Your task to perform on an android device: turn vacation reply on in the gmail app Image 0: 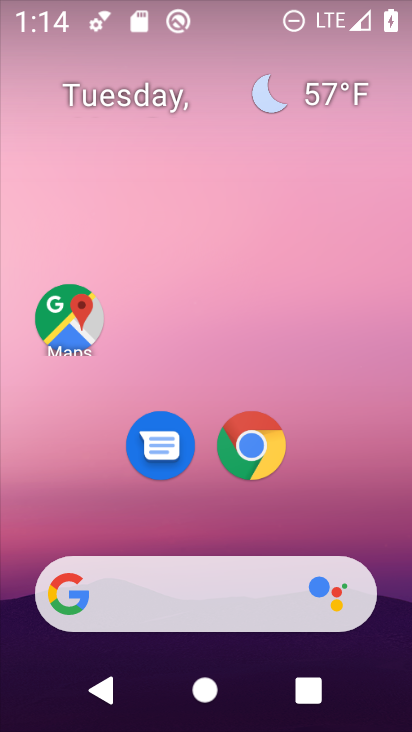
Step 0: drag from (369, 547) to (379, 179)
Your task to perform on an android device: turn vacation reply on in the gmail app Image 1: 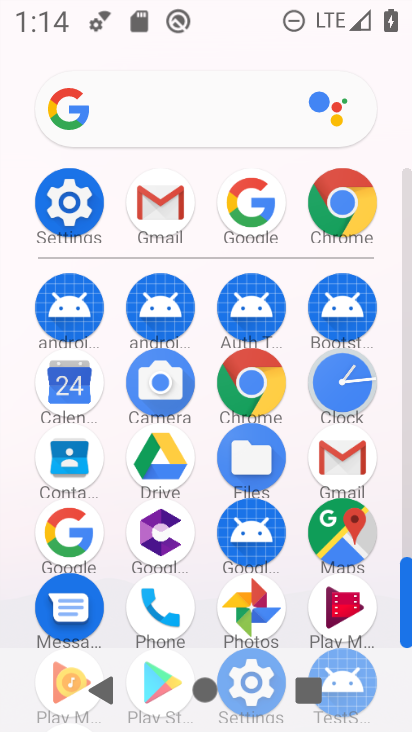
Step 1: click (344, 458)
Your task to perform on an android device: turn vacation reply on in the gmail app Image 2: 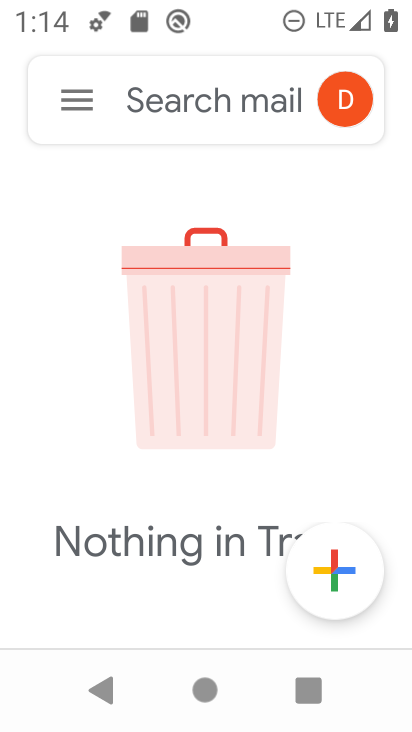
Step 2: click (84, 101)
Your task to perform on an android device: turn vacation reply on in the gmail app Image 3: 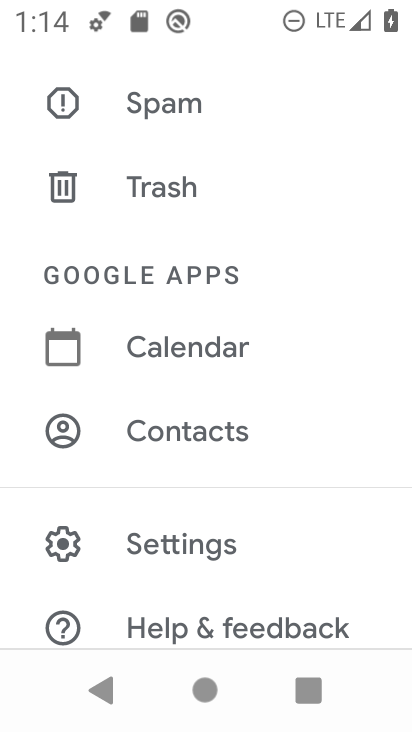
Step 3: drag from (331, 297) to (310, 424)
Your task to perform on an android device: turn vacation reply on in the gmail app Image 4: 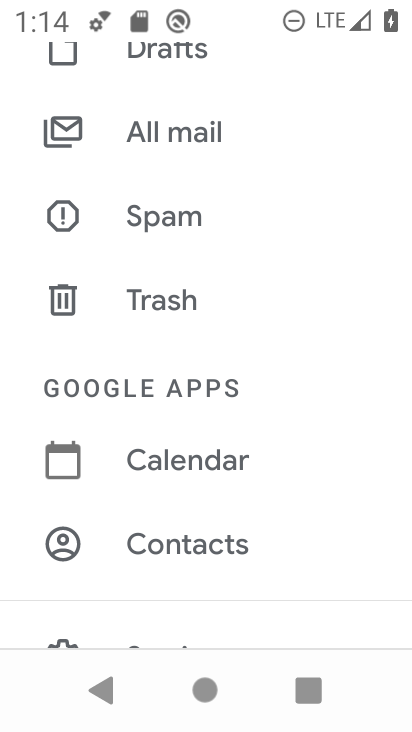
Step 4: drag from (341, 258) to (348, 391)
Your task to perform on an android device: turn vacation reply on in the gmail app Image 5: 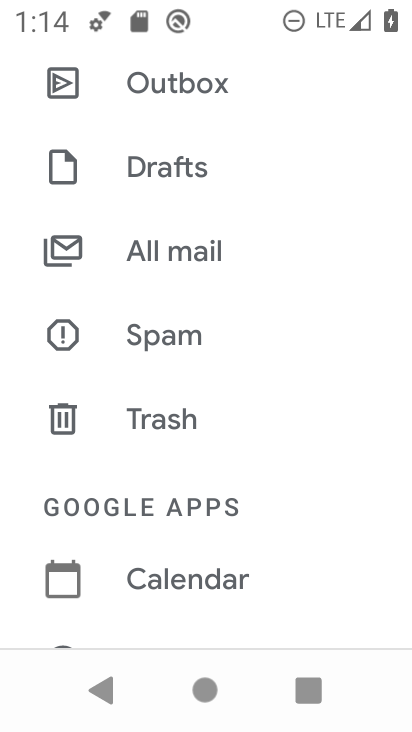
Step 5: drag from (363, 228) to (358, 341)
Your task to perform on an android device: turn vacation reply on in the gmail app Image 6: 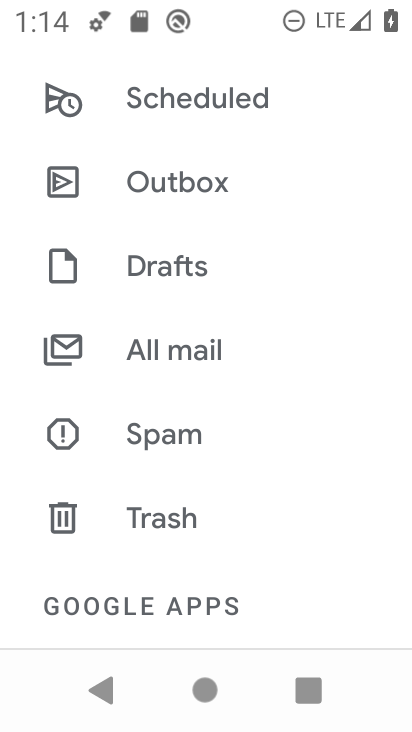
Step 6: drag from (356, 177) to (349, 337)
Your task to perform on an android device: turn vacation reply on in the gmail app Image 7: 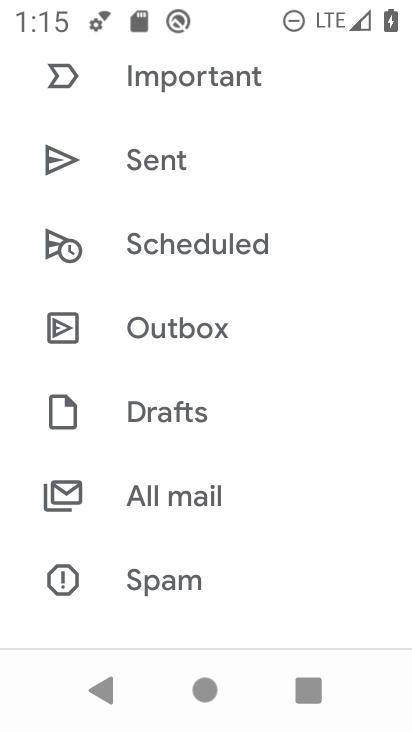
Step 7: drag from (347, 163) to (333, 373)
Your task to perform on an android device: turn vacation reply on in the gmail app Image 8: 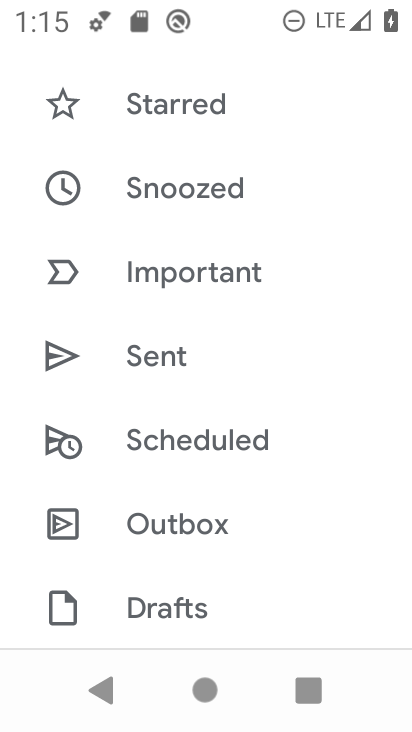
Step 8: drag from (353, 135) to (354, 379)
Your task to perform on an android device: turn vacation reply on in the gmail app Image 9: 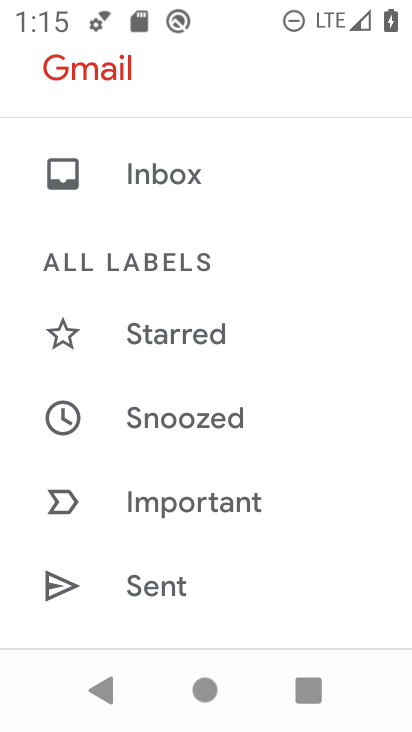
Step 9: drag from (361, 409) to (351, 212)
Your task to perform on an android device: turn vacation reply on in the gmail app Image 10: 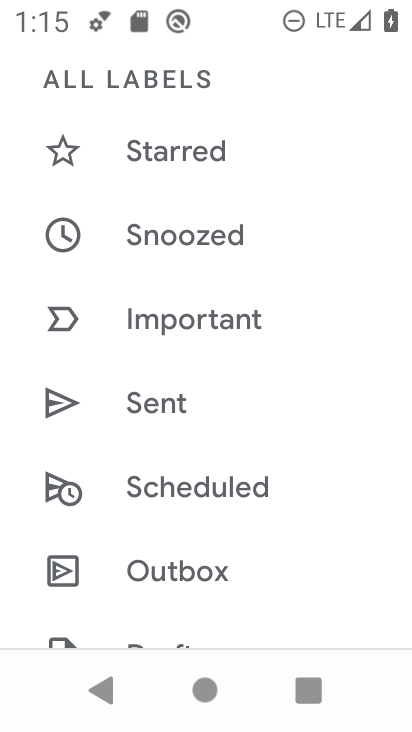
Step 10: drag from (363, 464) to (382, 288)
Your task to perform on an android device: turn vacation reply on in the gmail app Image 11: 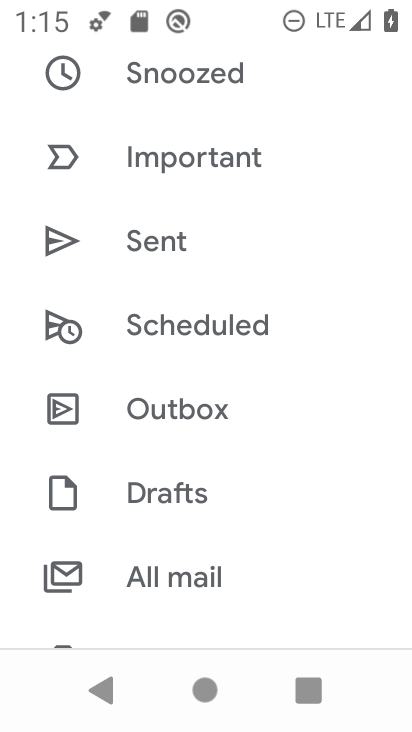
Step 11: drag from (326, 533) to (344, 355)
Your task to perform on an android device: turn vacation reply on in the gmail app Image 12: 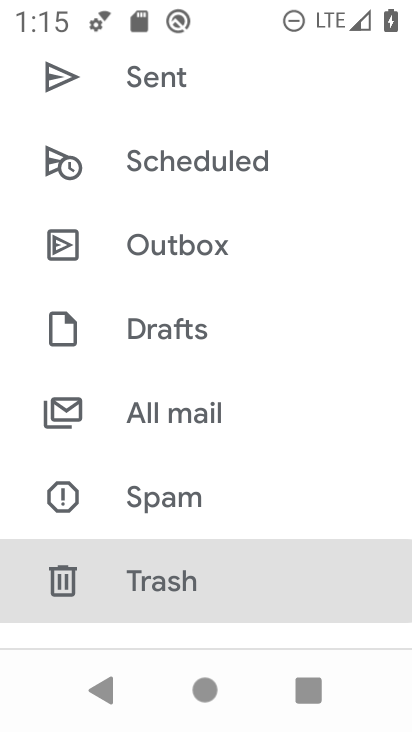
Step 12: drag from (341, 584) to (353, 342)
Your task to perform on an android device: turn vacation reply on in the gmail app Image 13: 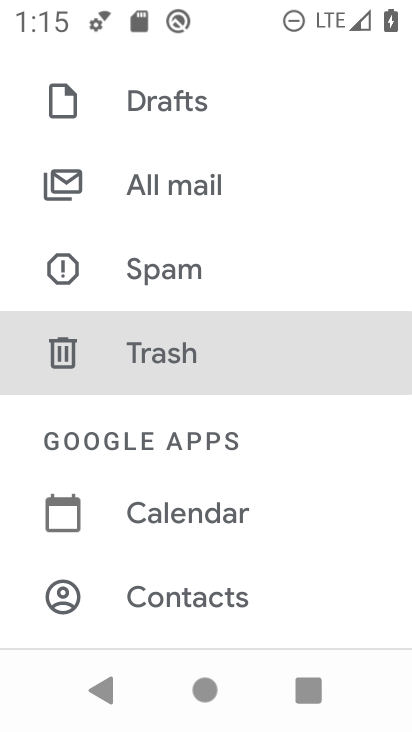
Step 13: drag from (339, 556) to (339, 340)
Your task to perform on an android device: turn vacation reply on in the gmail app Image 14: 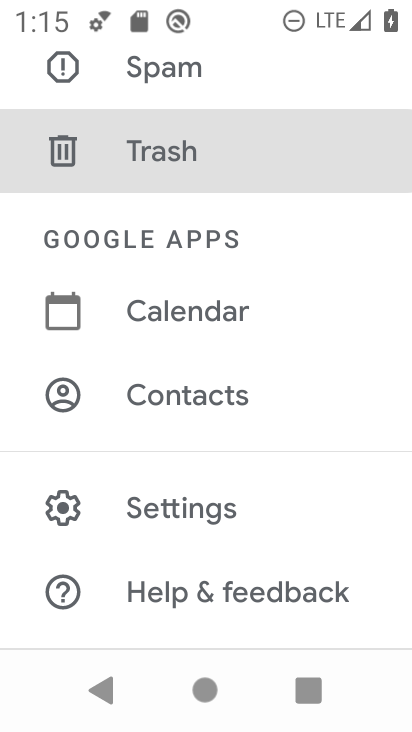
Step 14: click (244, 526)
Your task to perform on an android device: turn vacation reply on in the gmail app Image 15: 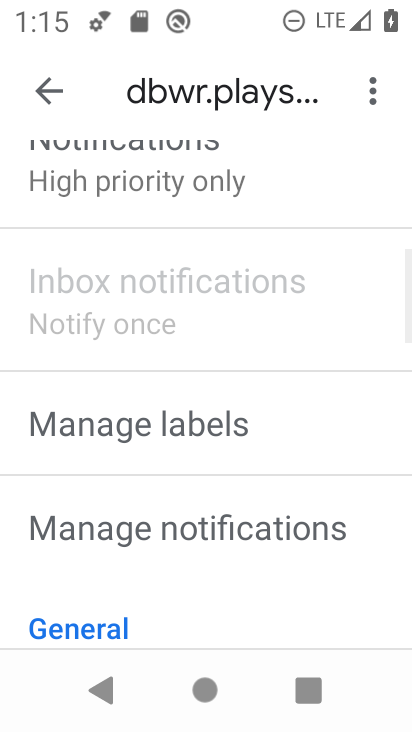
Step 15: drag from (267, 570) to (290, 421)
Your task to perform on an android device: turn vacation reply on in the gmail app Image 16: 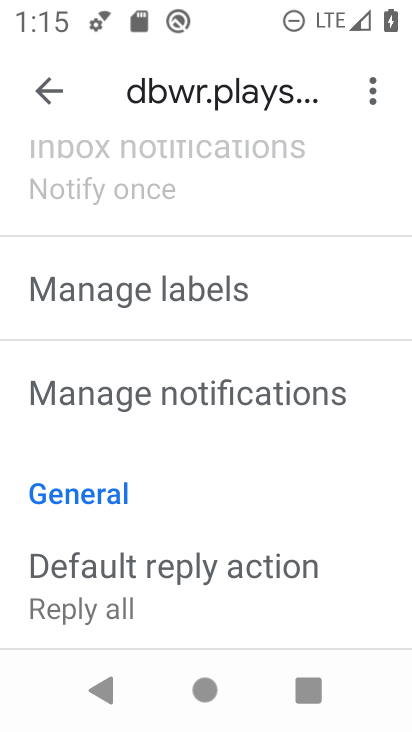
Step 16: drag from (333, 611) to (352, 467)
Your task to perform on an android device: turn vacation reply on in the gmail app Image 17: 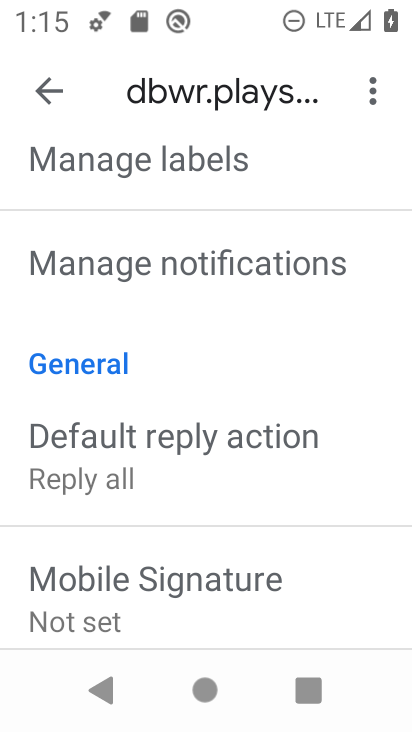
Step 17: drag from (359, 615) to (360, 480)
Your task to perform on an android device: turn vacation reply on in the gmail app Image 18: 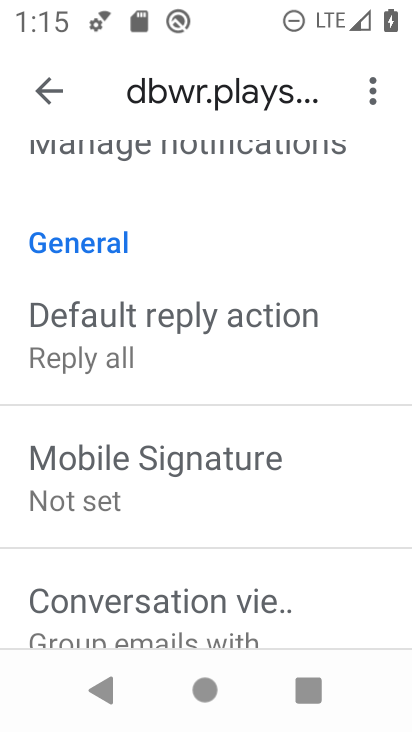
Step 18: drag from (343, 612) to (346, 499)
Your task to perform on an android device: turn vacation reply on in the gmail app Image 19: 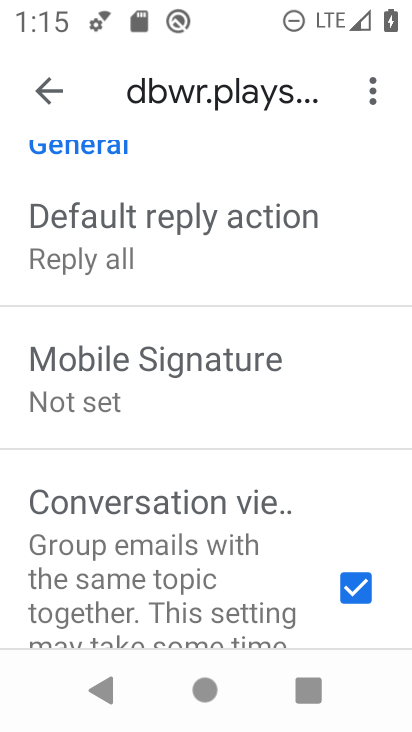
Step 19: drag from (305, 630) to (311, 488)
Your task to perform on an android device: turn vacation reply on in the gmail app Image 20: 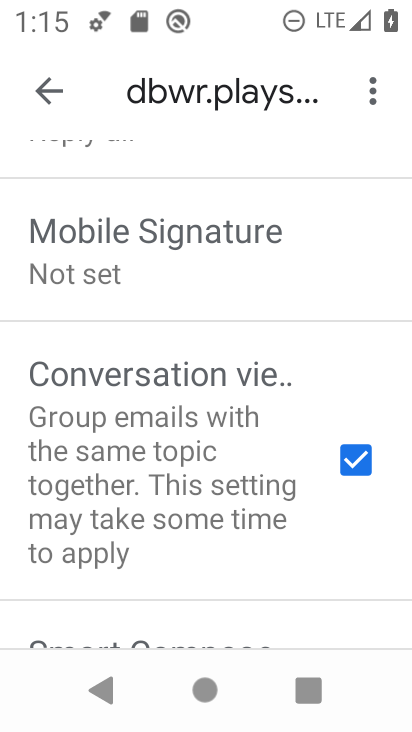
Step 20: drag from (284, 602) to (305, 464)
Your task to perform on an android device: turn vacation reply on in the gmail app Image 21: 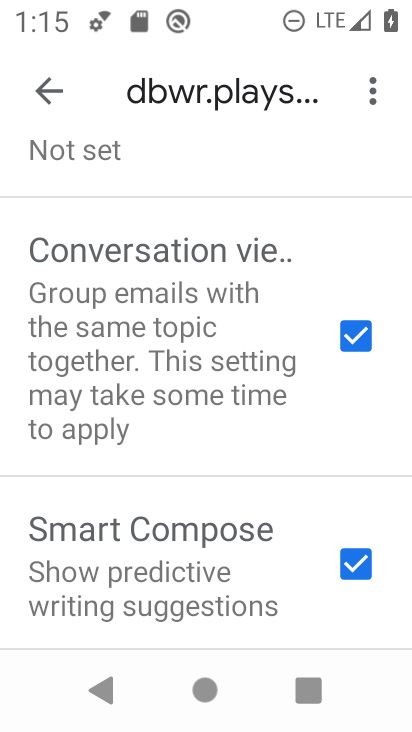
Step 21: drag from (321, 609) to (301, 487)
Your task to perform on an android device: turn vacation reply on in the gmail app Image 22: 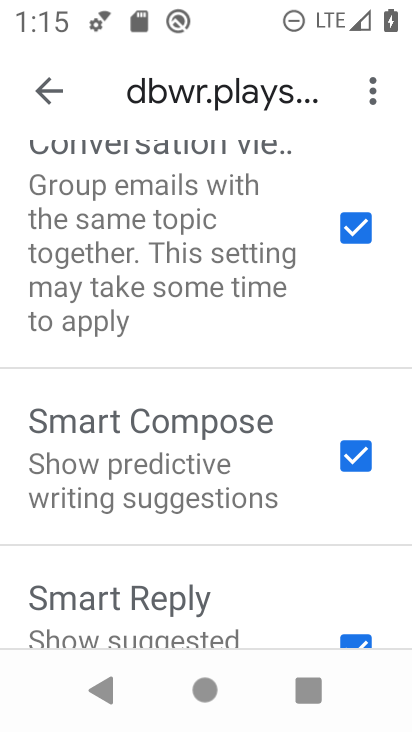
Step 22: drag from (291, 593) to (302, 455)
Your task to perform on an android device: turn vacation reply on in the gmail app Image 23: 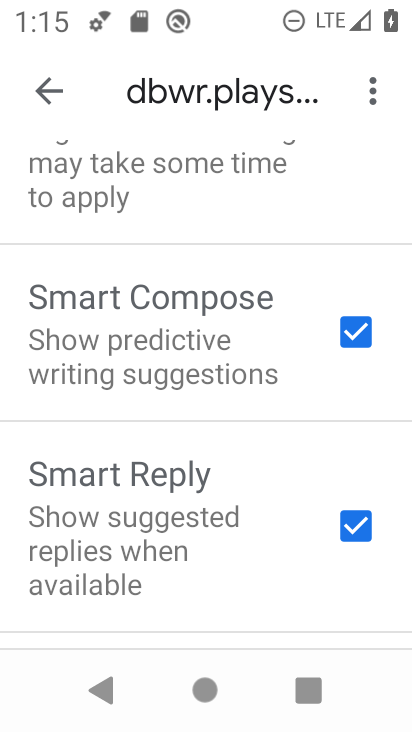
Step 23: drag from (261, 490) to (275, 351)
Your task to perform on an android device: turn vacation reply on in the gmail app Image 24: 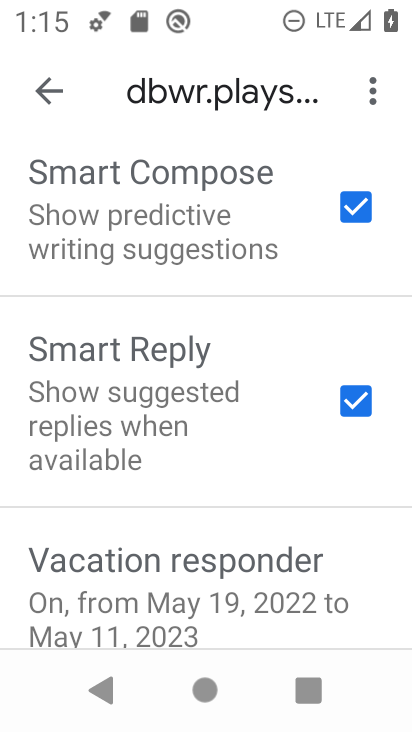
Step 24: drag from (253, 535) to (286, 289)
Your task to perform on an android device: turn vacation reply on in the gmail app Image 25: 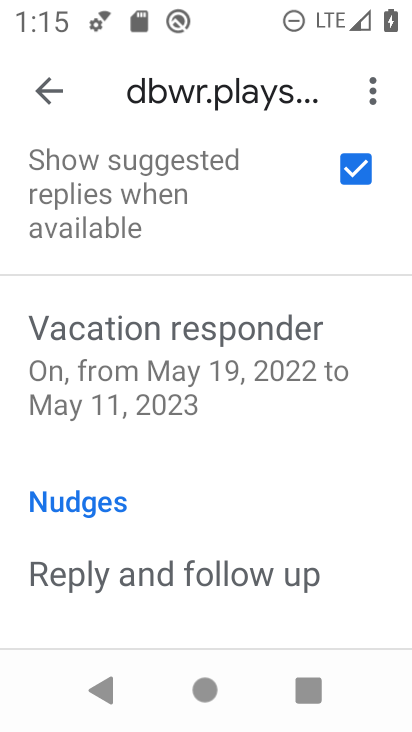
Step 25: click (223, 379)
Your task to perform on an android device: turn vacation reply on in the gmail app Image 26: 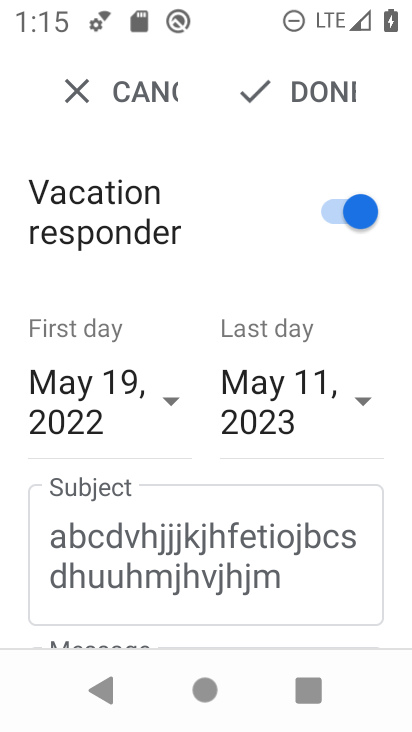
Step 26: task complete